Your task to perform on an android device: empty trash in the gmail app Image 0: 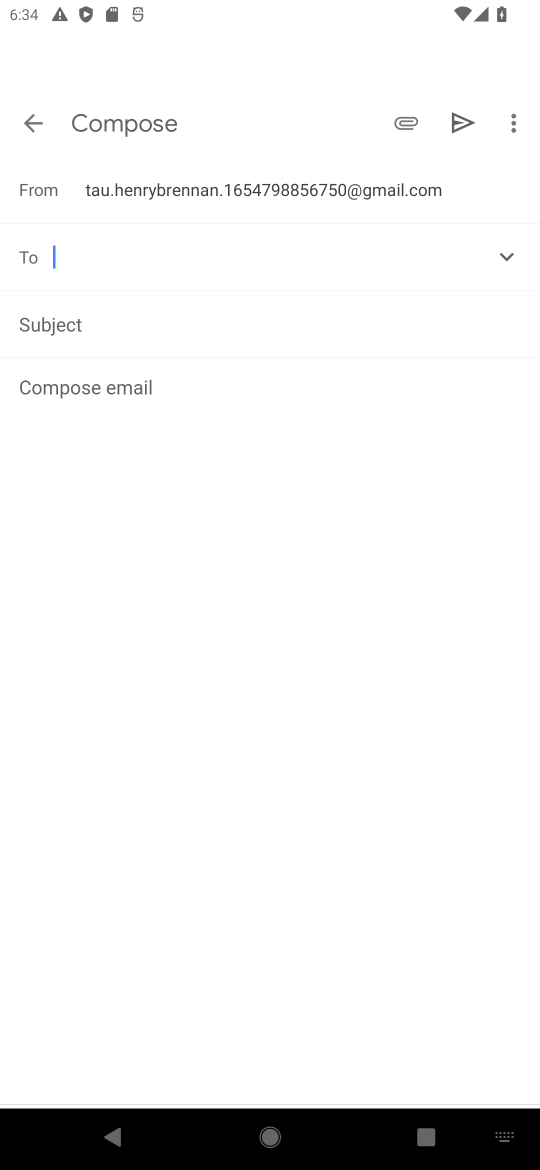
Step 0: press home button
Your task to perform on an android device: empty trash in the gmail app Image 1: 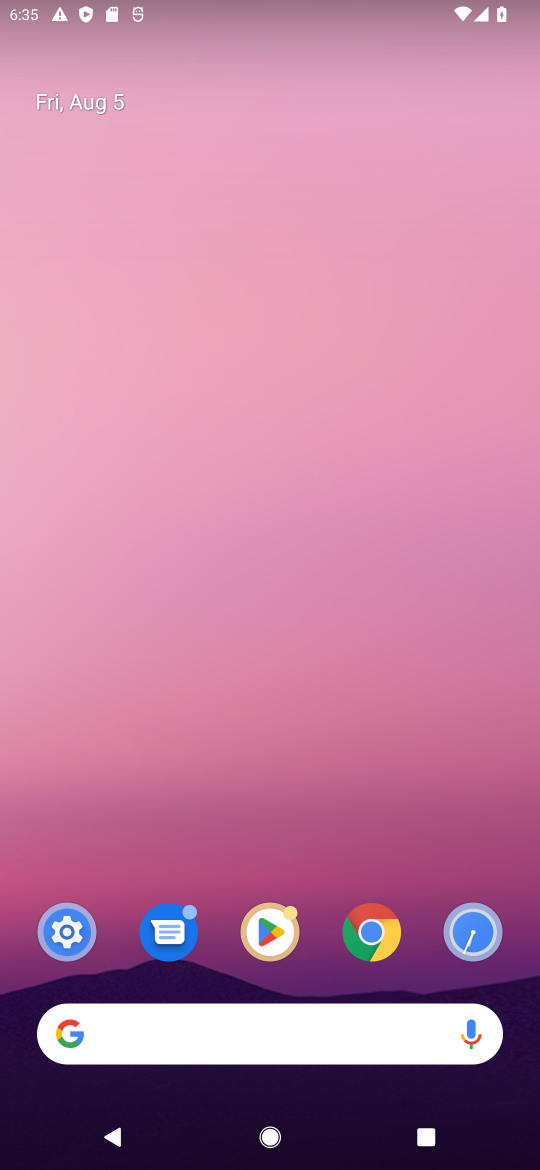
Step 1: drag from (260, 1006) to (359, 314)
Your task to perform on an android device: empty trash in the gmail app Image 2: 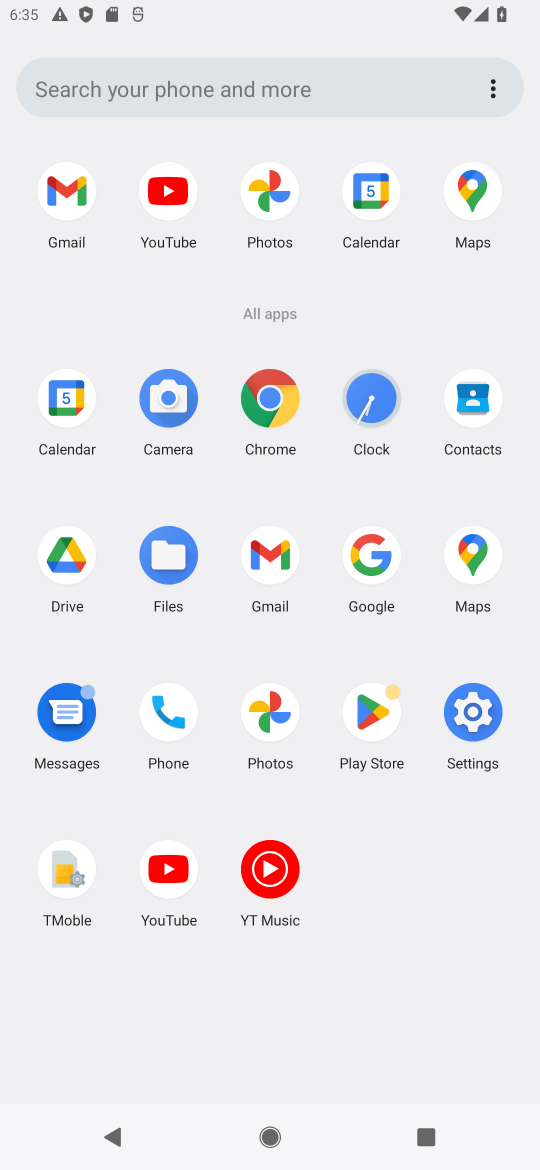
Step 2: click (270, 556)
Your task to perform on an android device: empty trash in the gmail app Image 3: 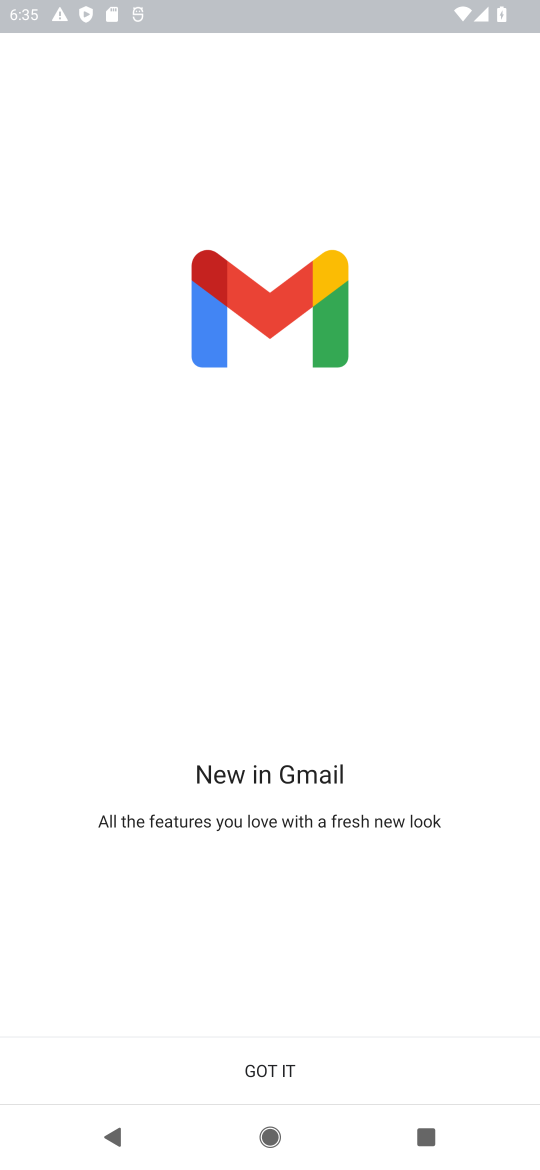
Step 3: click (257, 1067)
Your task to perform on an android device: empty trash in the gmail app Image 4: 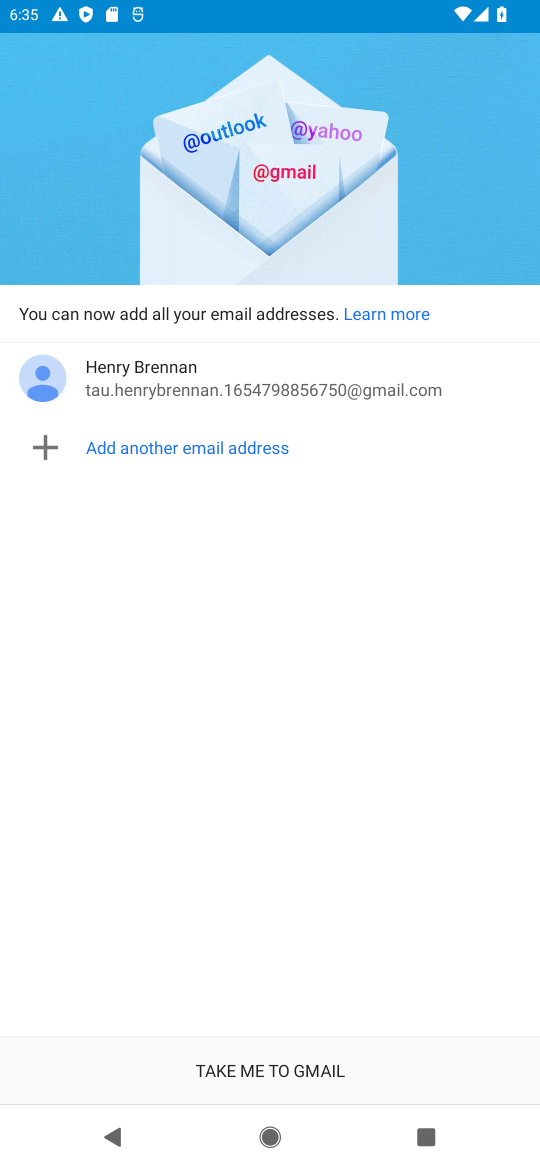
Step 4: click (257, 1067)
Your task to perform on an android device: empty trash in the gmail app Image 5: 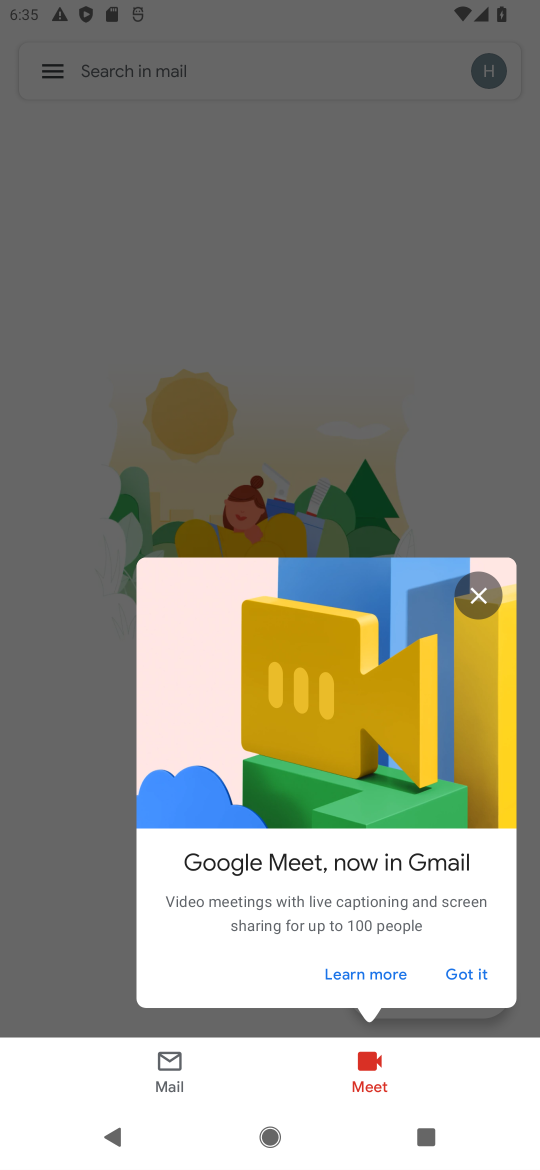
Step 5: click (461, 971)
Your task to perform on an android device: empty trash in the gmail app Image 6: 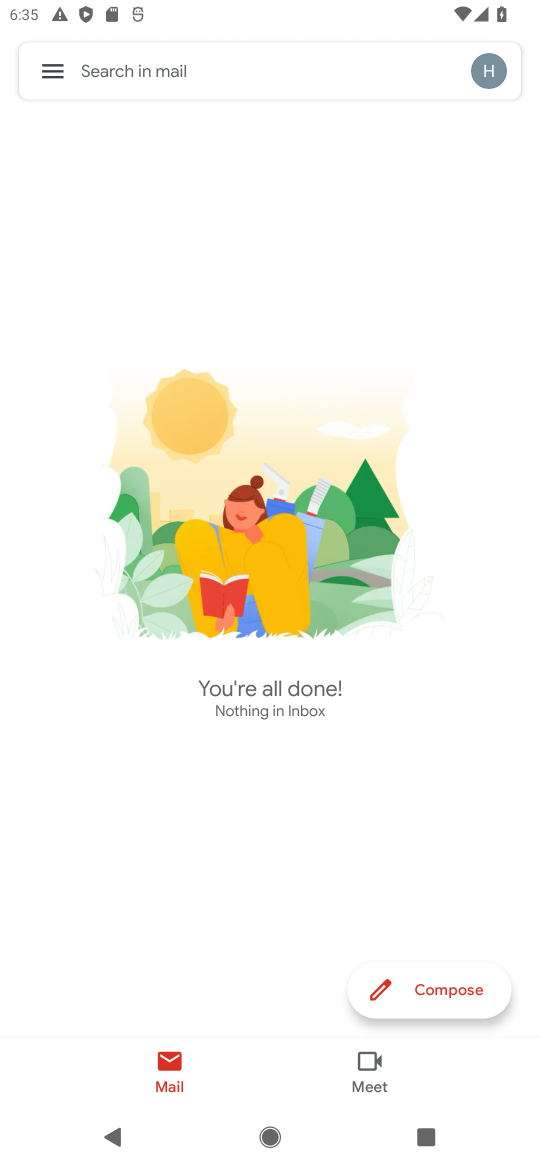
Step 6: click (50, 71)
Your task to perform on an android device: empty trash in the gmail app Image 7: 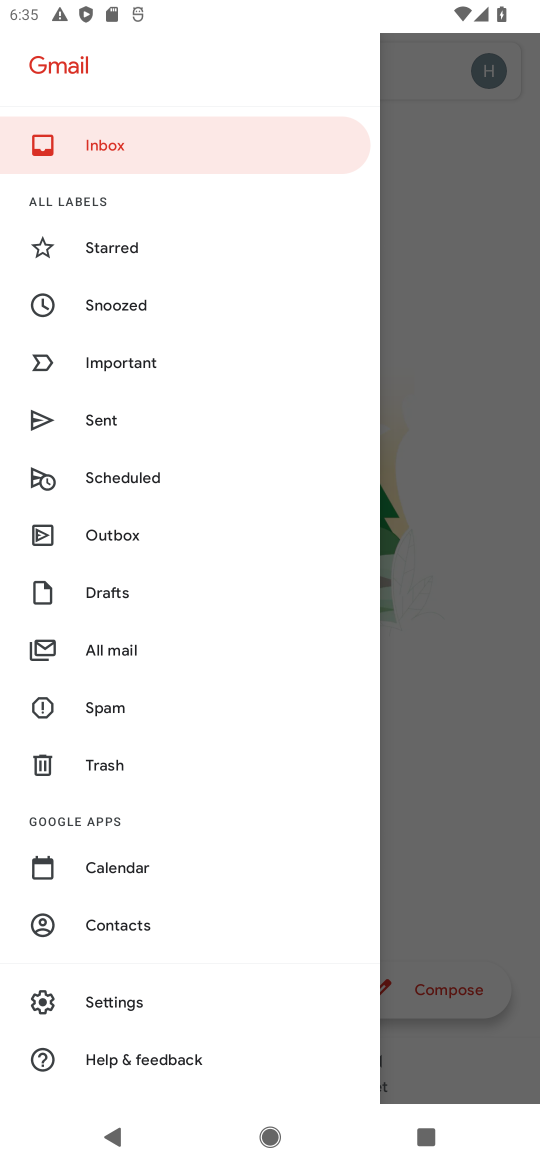
Step 7: click (108, 764)
Your task to perform on an android device: empty trash in the gmail app Image 8: 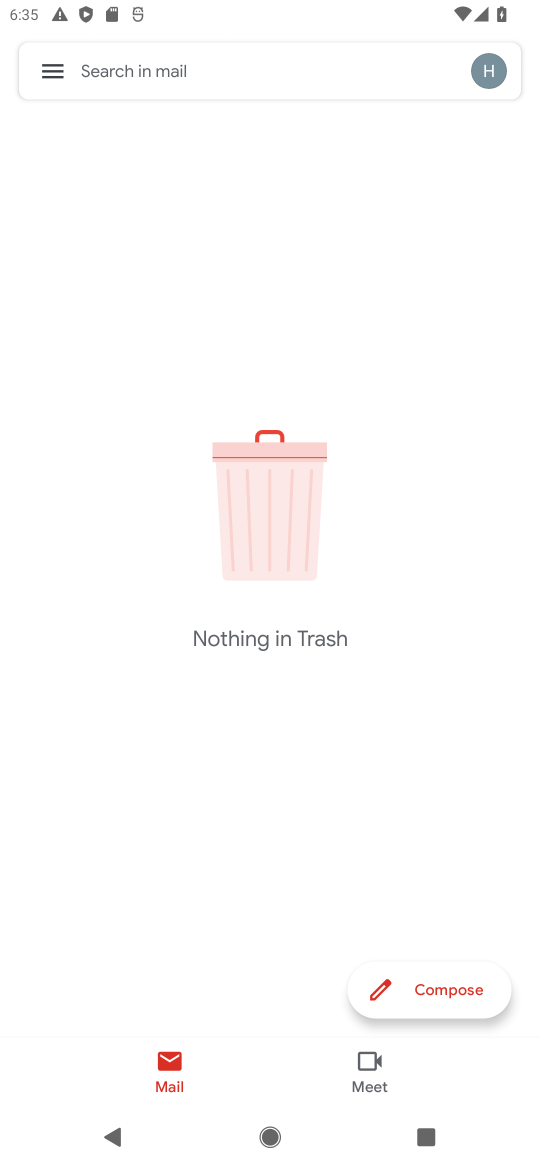
Step 8: task complete